Your task to perform on an android device: Clear all items from cart on bestbuy.com. Add usb-a to usb-b to the cart on bestbuy.com, then select checkout. Image 0: 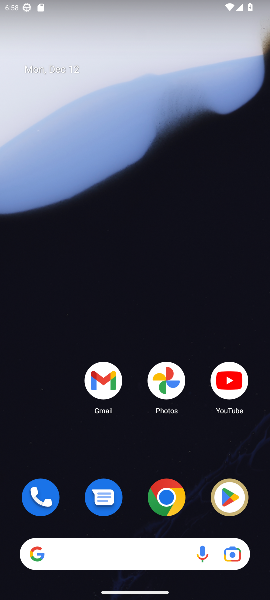
Step 0: press home button
Your task to perform on an android device: Clear all items from cart on bestbuy.com. Add usb-a to usb-b to the cart on bestbuy.com, then select checkout. Image 1: 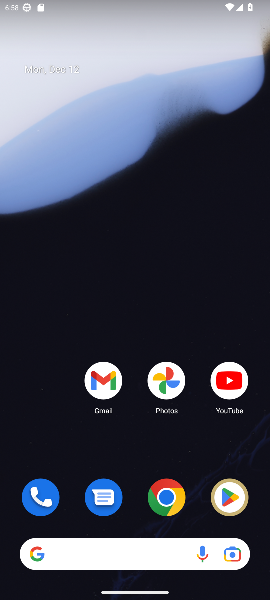
Step 1: drag from (57, 413) to (95, 46)
Your task to perform on an android device: Clear all items from cart on bestbuy.com. Add usb-a to usb-b to the cart on bestbuy.com, then select checkout. Image 2: 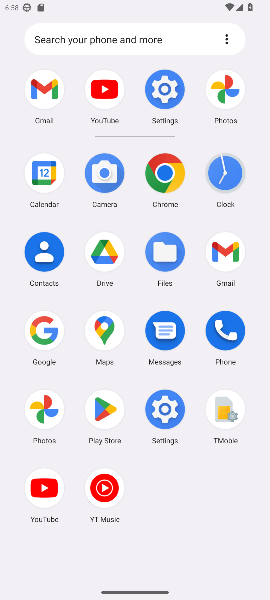
Step 2: click (41, 325)
Your task to perform on an android device: Clear all items from cart on bestbuy.com. Add usb-a to usb-b to the cart on bestbuy.com, then select checkout. Image 3: 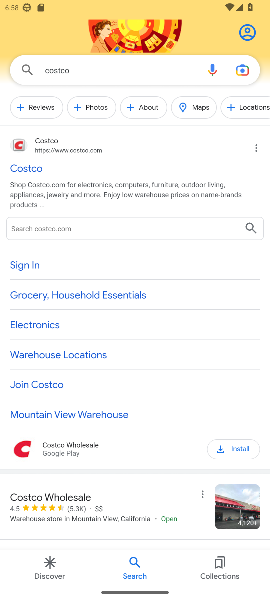
Step 3: click (102, 69)
Your task to perform on an android device: Clear all items from cart on bestbuy.com. Add usb-a to usb-b to the cart on bestbuy.com, then select checkout. Image 4: 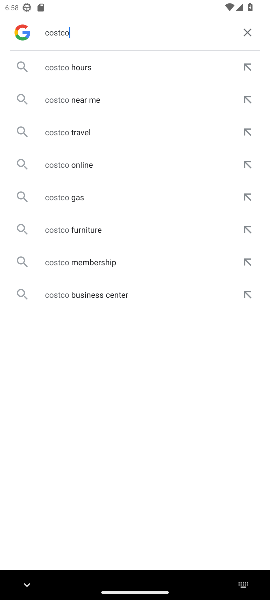
Step 4: click (247, 32)
Your task to perform on an android device: Clear all items from cart on bestbuy.com. Add usb-a to usb-b to the cart on bestbuy.com, then select checkout. Image 5: 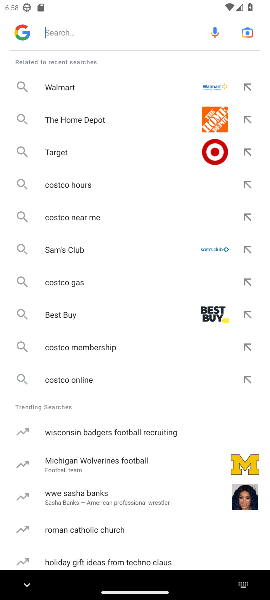
Step 5: press enter
Your task to perform on an android device: Clear all items from cart on bestbuy.com. Add usb-a to usb-b to the cart on bestbuy.com, then select checkout. Image 6: 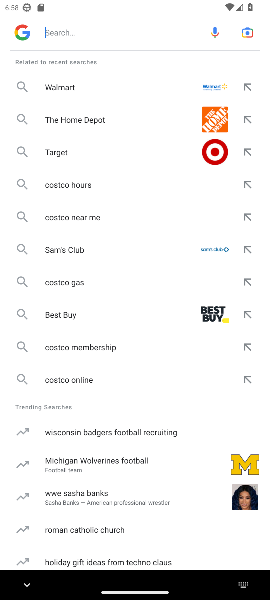
Step 6: type "bestbuy.com"
Your task to perform on an android device: Clear all items from cart on bestbuy.com. Add usb-a to usb-b to the cart on bestbuy.com, then select checkout. Image 7: 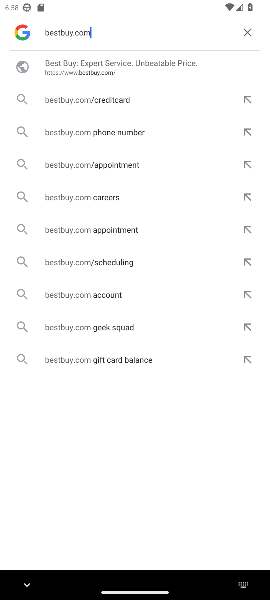
Step 7: press enter
Your task to perform on an android device: Clear all items from cart on bestbuy.com. Add usb-a to usb-b to the cart on bestbuy.com, then select checkout. Image 8: 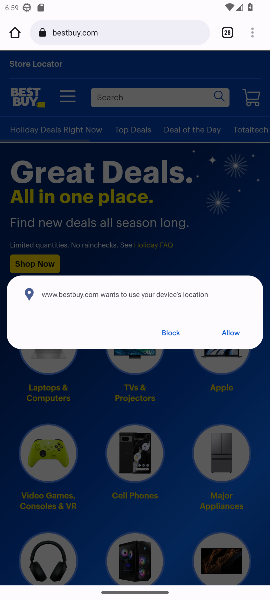
Step 8: click (126, 97)
Your task to perform on an android device: Clear all items from cart on bestbuy.com. Add usb-a to usb-b to the cart on bestbuy.com, then select checkout. Image 9: 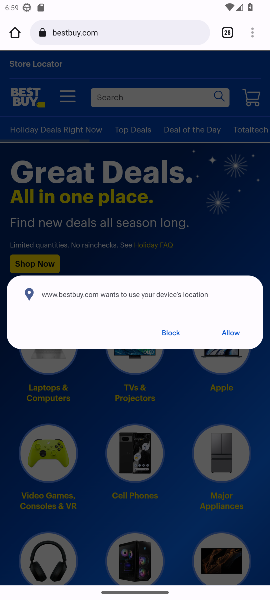
Step 9: click (170, 330)
Your task to perform on an android device: Clear all items from cart on bestbuy.com. Add usb-a to usb-b to the cart on bestbuy.com, then select checkout. Image 10: 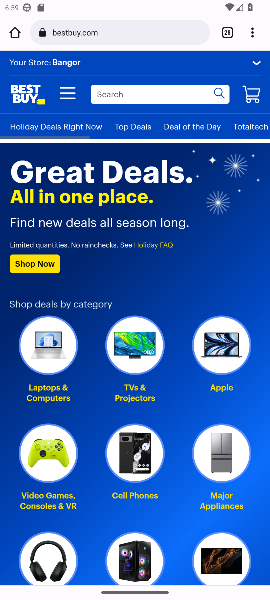
Step 10: click (251, 96)
Your task to perform on an android device: Clear all items from cart on bestbuy.com. Add usb-a to usb-b to the cart on bestbuy.com, then select checkout. Image 11: 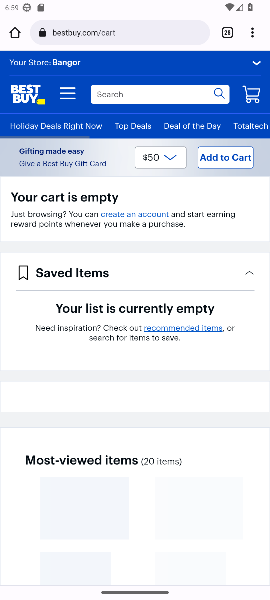
Step 11: click (106, 91)
Your task to perform on an android device: Clear all items from cart on bestbuy.com. Add usb-a to usb-b to the cart on bestbuy.com, then select checkout. Image 12: 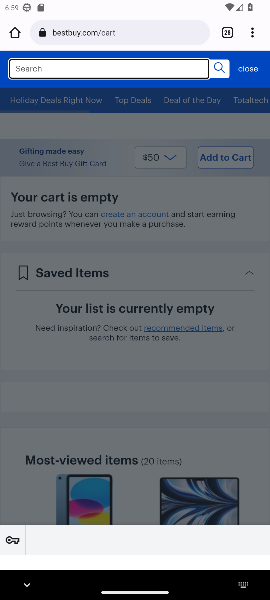
Step 12: type "usb-a "
Your task to perform on an android device: Clear all items from cart on bestbuy.com. Add usb-a to usb-b to the cart on bestbuy.com, then select checkout. Image 13: 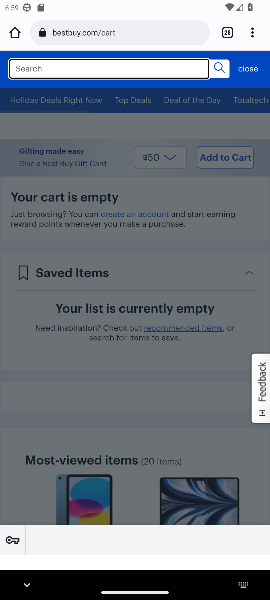
Step 13: press enter
Your task to perform on an android device: Clear all items from cart on bestbuy.com. Add usb-a to usb-b to the cart on bestbuy.com, then select checkout. Image 14: 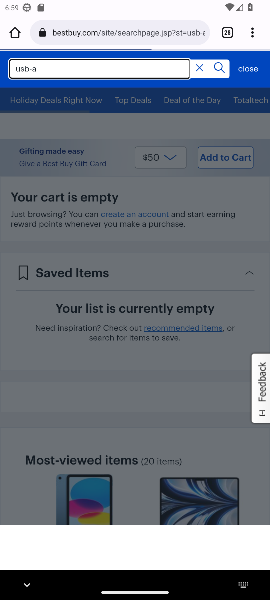
Step 14: press enter
Your task to perform on an android device: Clear all items from cart on bestbuy.com. Add usb-a to usb-b to the cart on bestbuy.com, then select checkout. Image 15: 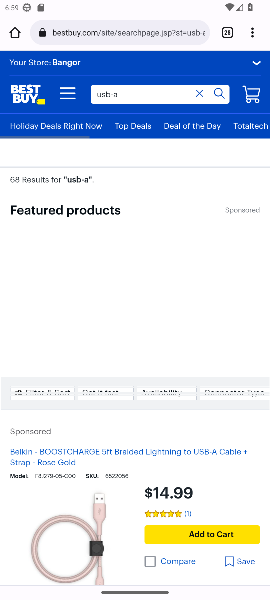
Step 15: drag from (172, 505) to (163, 217)
Your task to perform on an android device: Clear all items from cart on bestbuy.com. Add usb-a to usb-b to the cart on bestbuy.com, then select checkout. Image 16: 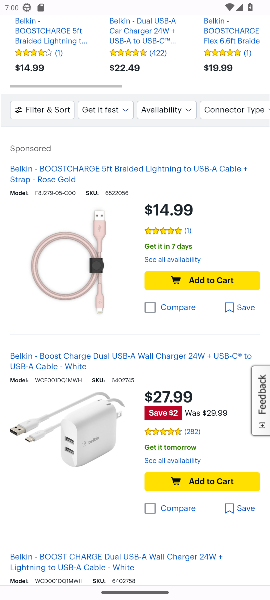
Step 16: click (207, 282)
Your task to perform on an android device: Clear all items from cart on bestbuy.com. Add usb-a to usb-b to the cart on bestbuy.com, then select checkout. Image 17: 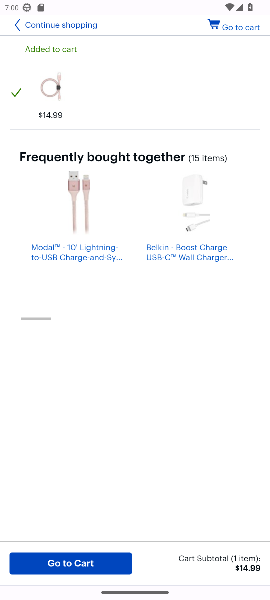
Step 17: click (71, 557)
Your task to perform on an android device: Clear all items from cart on bestbuy.com. Add usb-a to usb-b to the cart on bestbuy.com, then select checkout. Image 18: 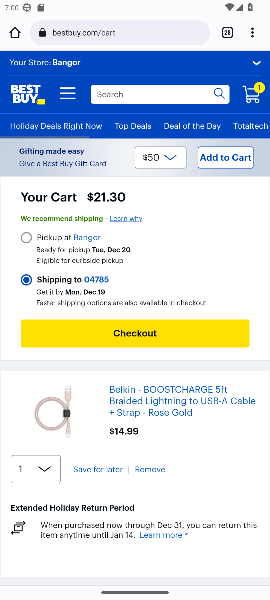
Step 18: click (143, 334)
Your task to perform on an android device: Clear all items from cart on bestbuy.com. Add usb-a to usb-b to the cart on bestbuy.com, then select checkout. Image 19: 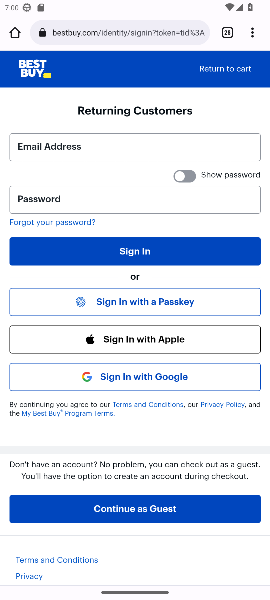
Step 19: task complete